Your task to perform on an android device: set default search engine in the chrome app Image 0: 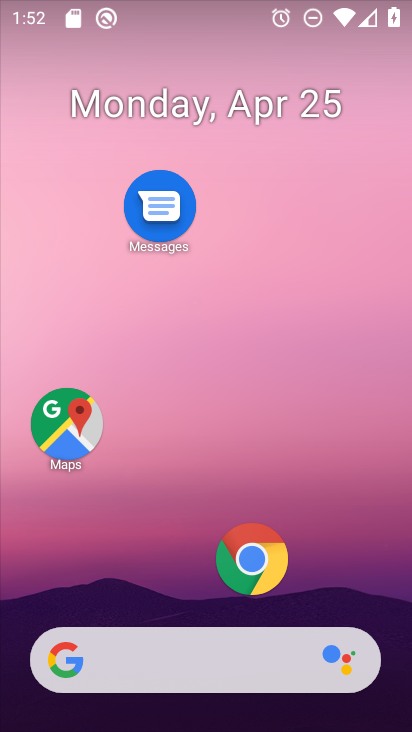
Step 0: click (253, 561)
Your task to perform on an android device: set default search engine in the chrome app Image 1: 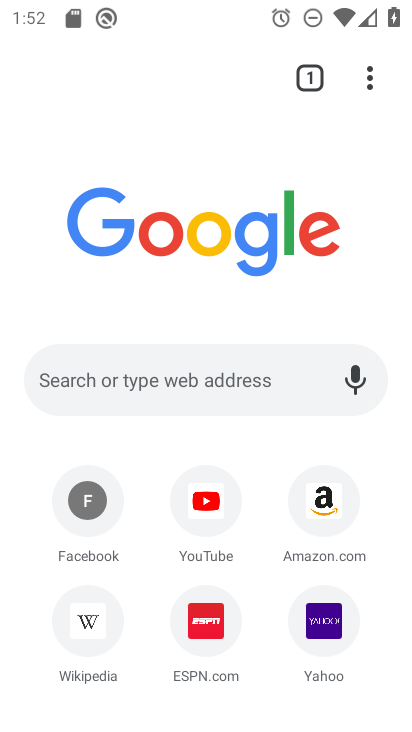
Step 1: click (363, 90)
Your task to perform on an android device: set default search engine in the chrome app Image 2: 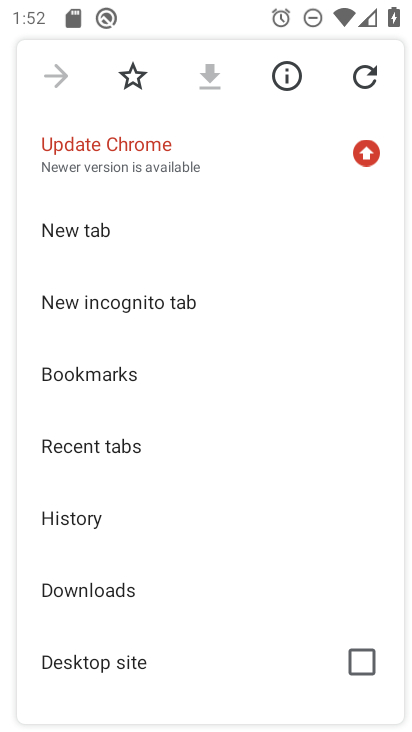
Step 2: drag from (265, 531) to (245, 137)
Your task to perform on an android device: set default search engine in the chrome app Image 3: 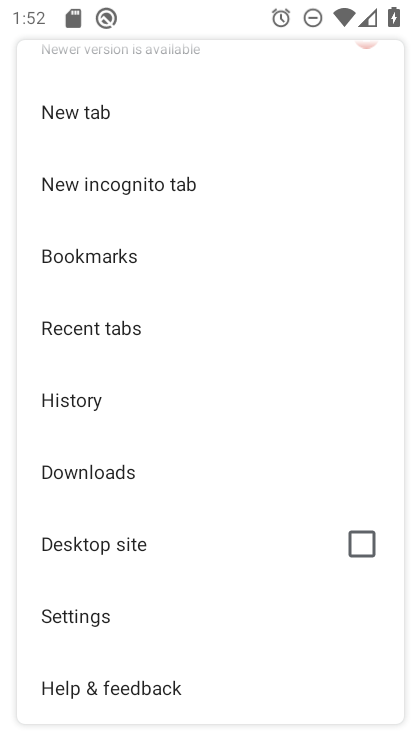
Step 3: click (89, 613)
Your task to perform on an android device: set default search engine in the chrome app Image 4: 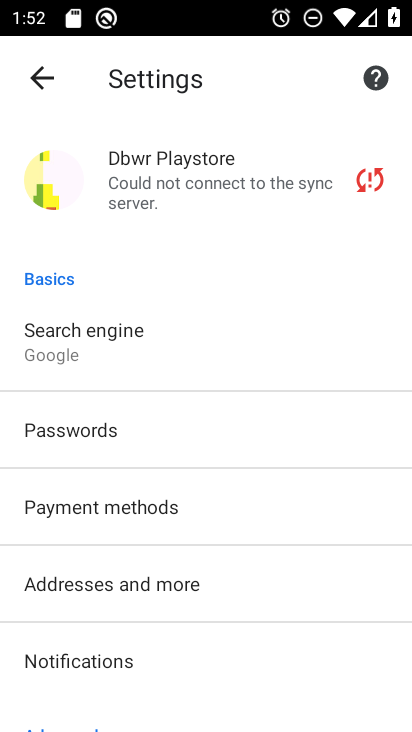
Step 4: click (128, 349)
Your task to perform on an android device: set default search engine in the chrome app Image 5: 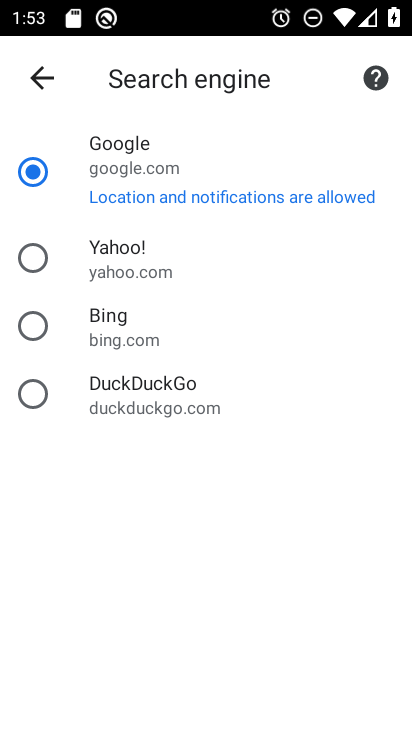
Step 5: task complete